Your task to perform on an android device: Open Google Image 0: 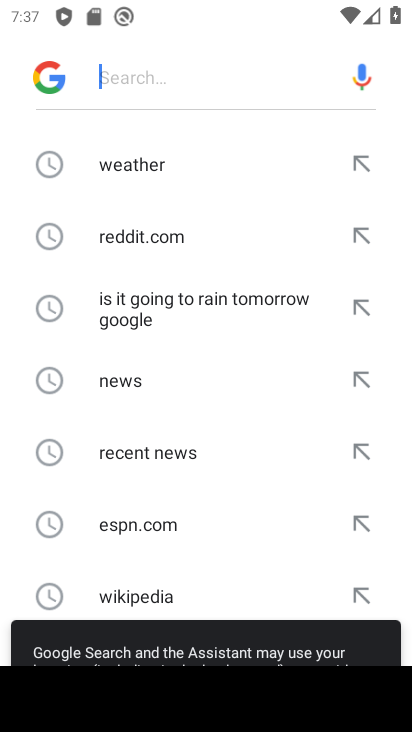
Step 0: press home button
Your task to perform on an android device: Open Google Image 1: 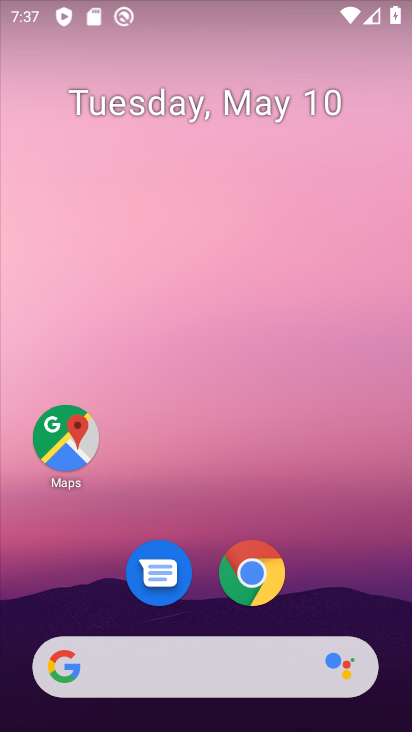
Step 1: drag from (372, 613) to (345, 187)
Your task to perform on an android device: Open Google Image 2: 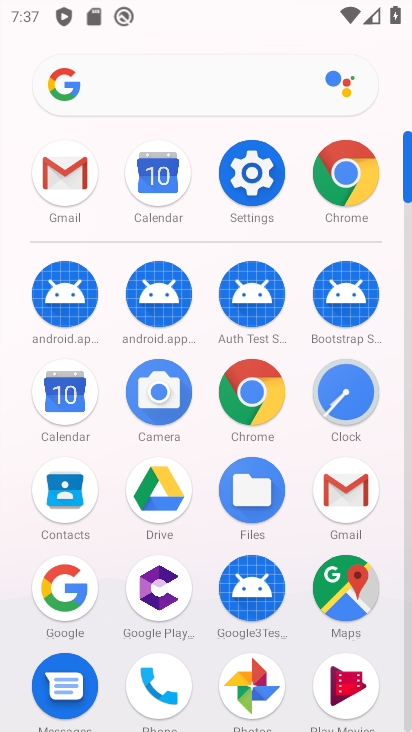
Step 2: click (76, 605)
Your task to perform on an android device: Open Google Image 3: 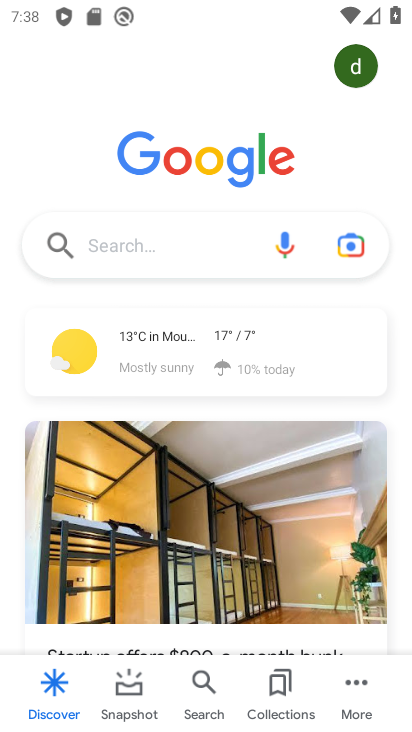
Step 3: task complete